Your task to perform on an android device: What's the news in the Philippines? Image 0: 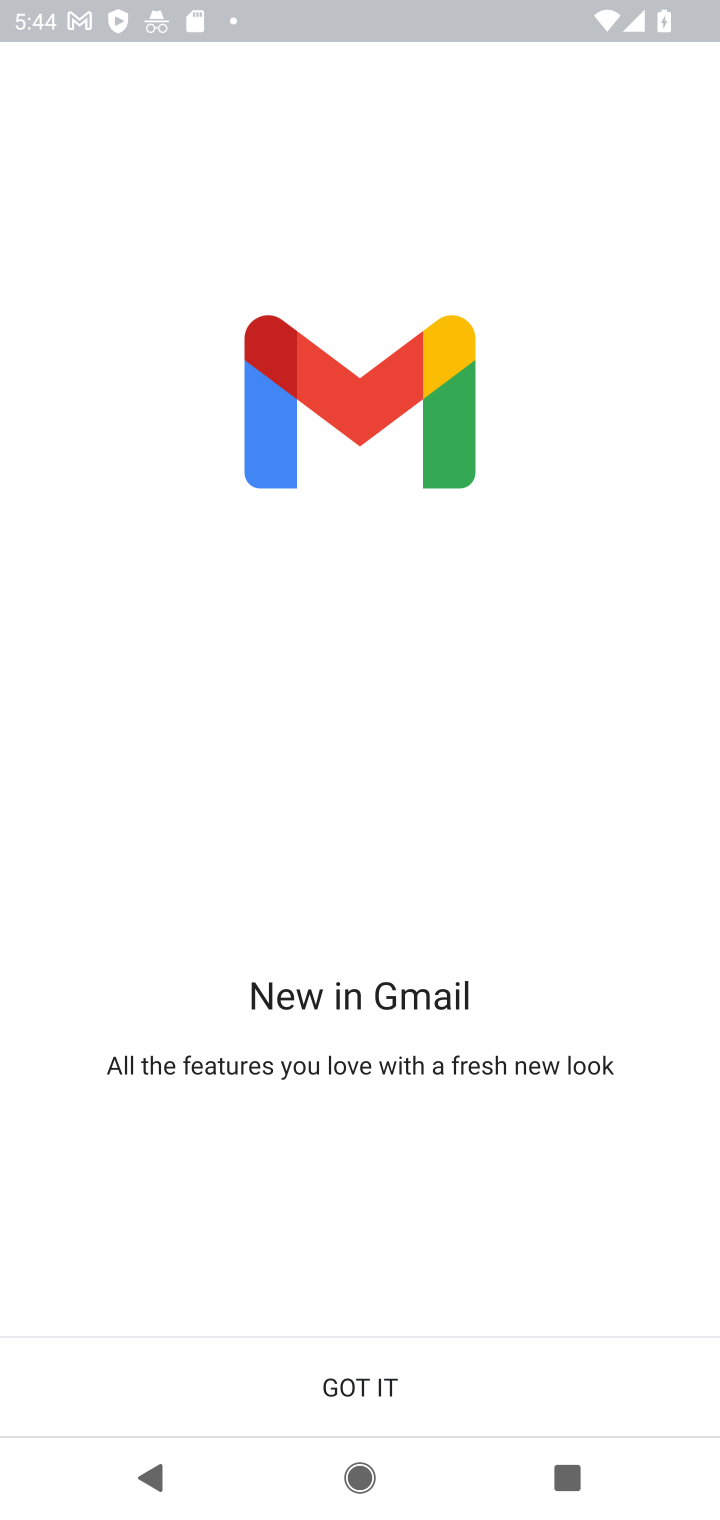
Step 0: press home button
Your task to perform on an android device: What's the news in the Philippines? Image 1: 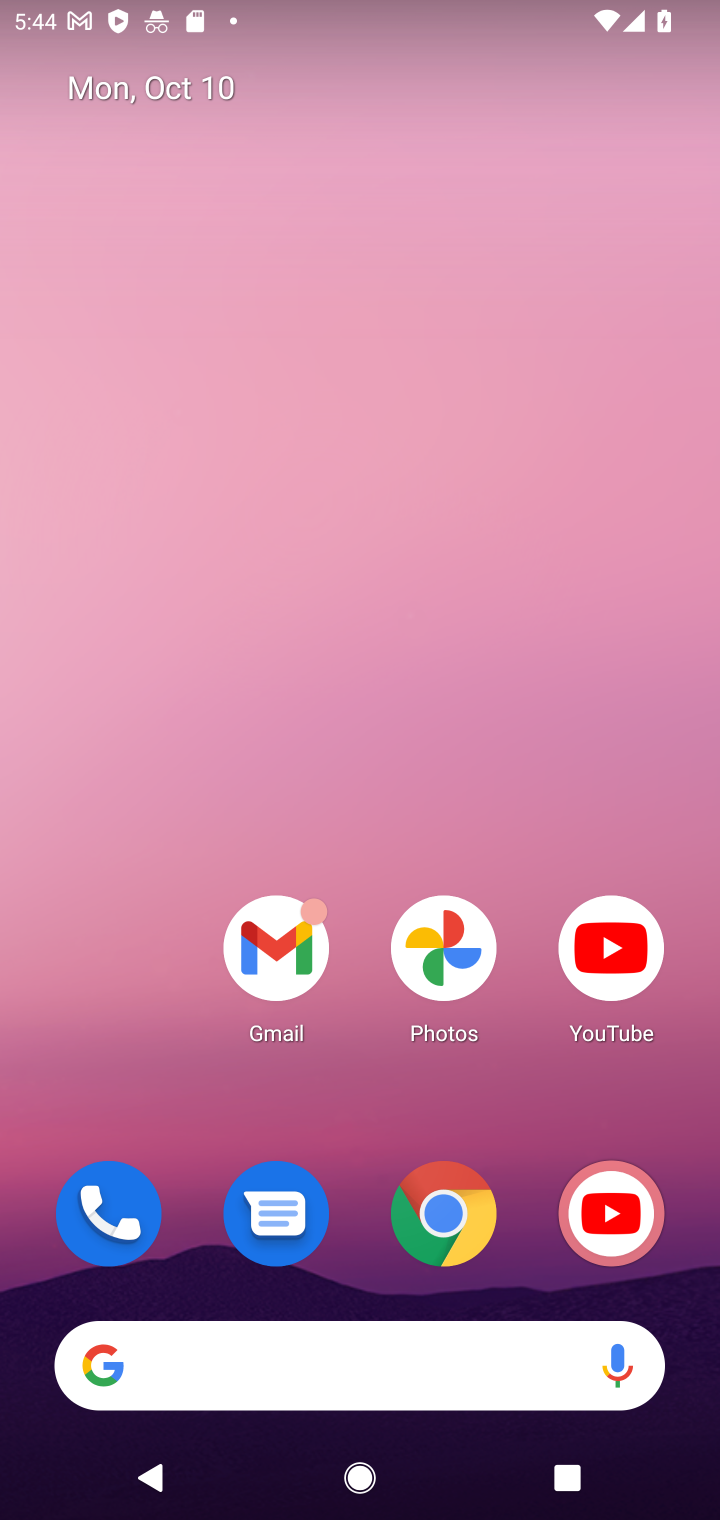
Step 1: click (356, 1356)
Your task to perform on an android device: What's the news in the Philippines? Image 2: 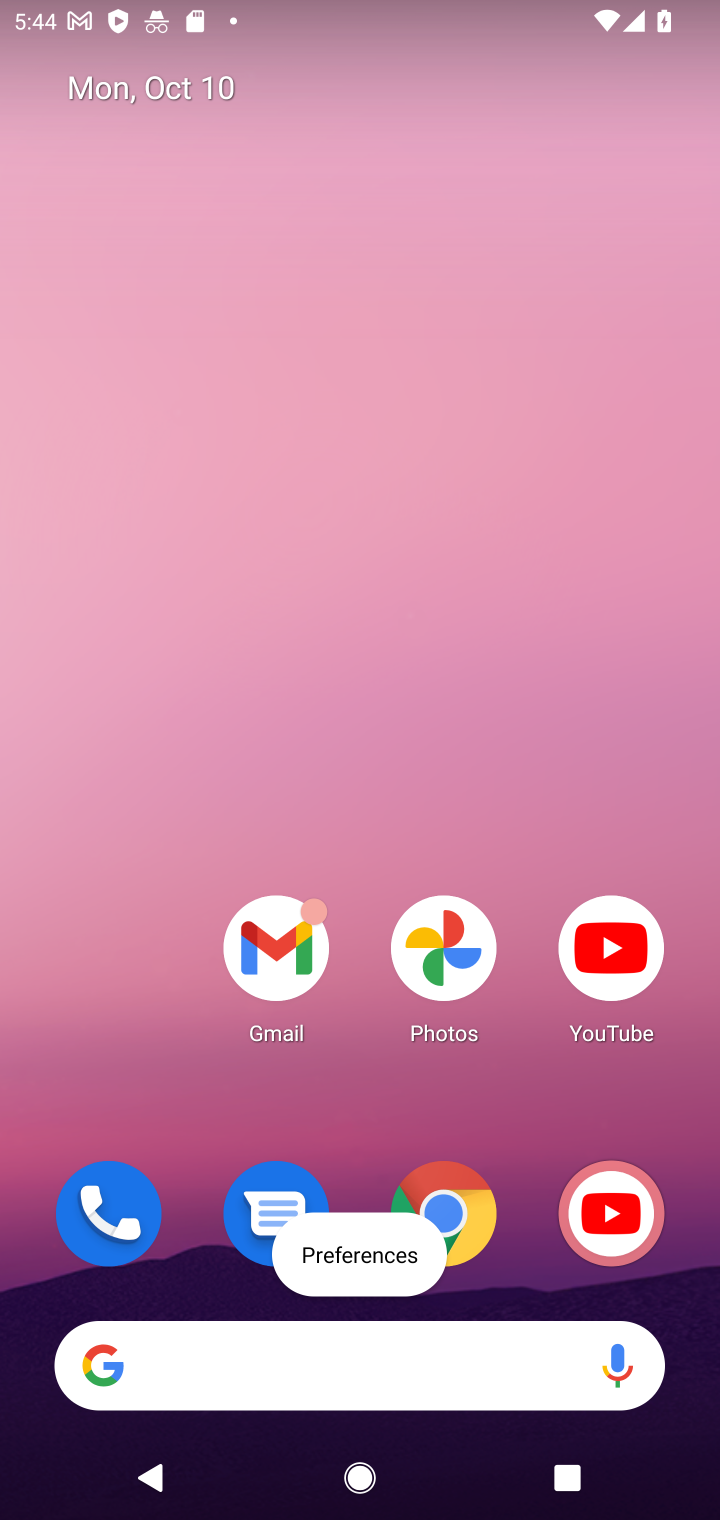
Step 2: click (274, 1366)
Your task to perform on an android device: What's the news in the Philippines? Image 3: 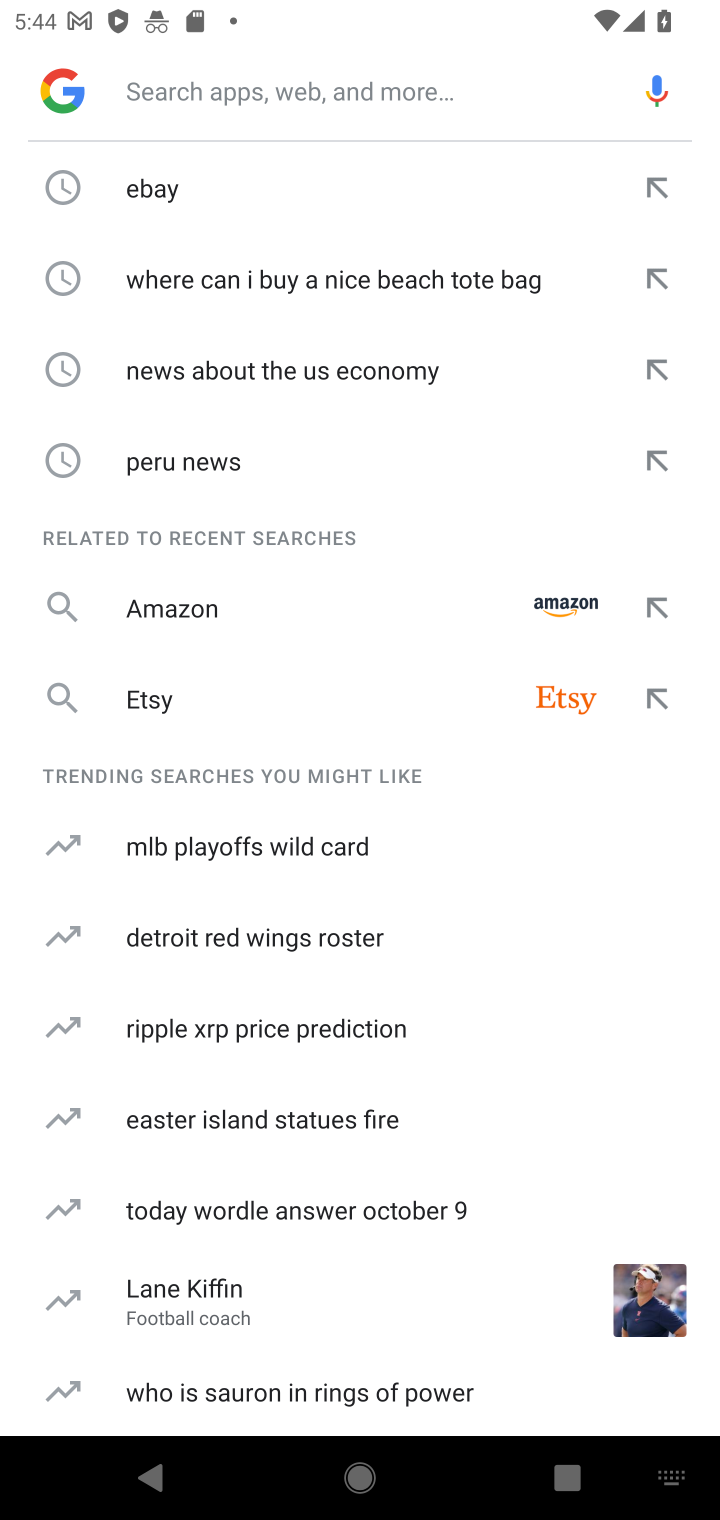
Step 3: click (189, 94)
Your task to perform on an android device: What's the news in the Philippines? Image 4: 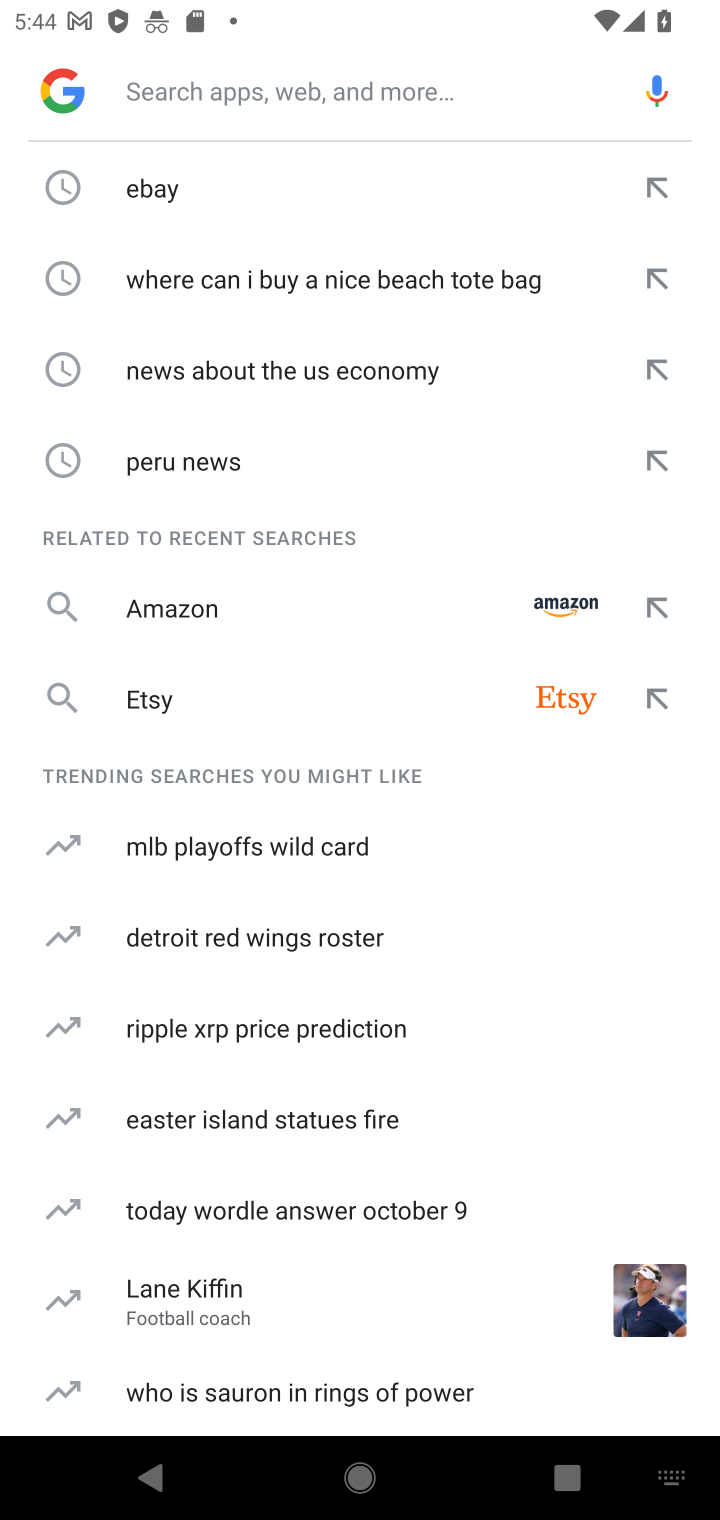
Step 4: type "What's the news in the Philippines?"
Your task to perform on an android device: What's the news in the Philippines? Image 5: 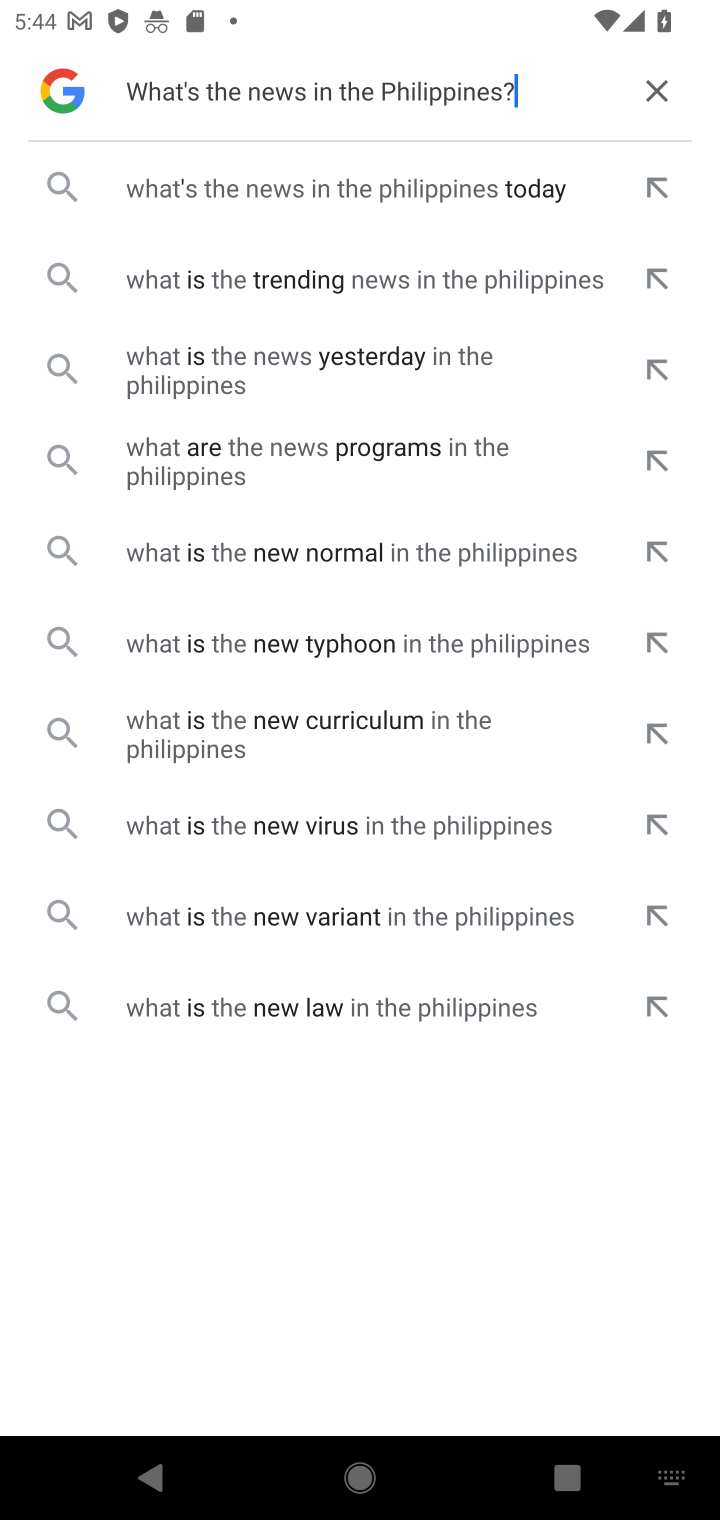
Step 5: click (407, 196)
Your task to perform on an android device: What's the news in the Philippines? Image 6: 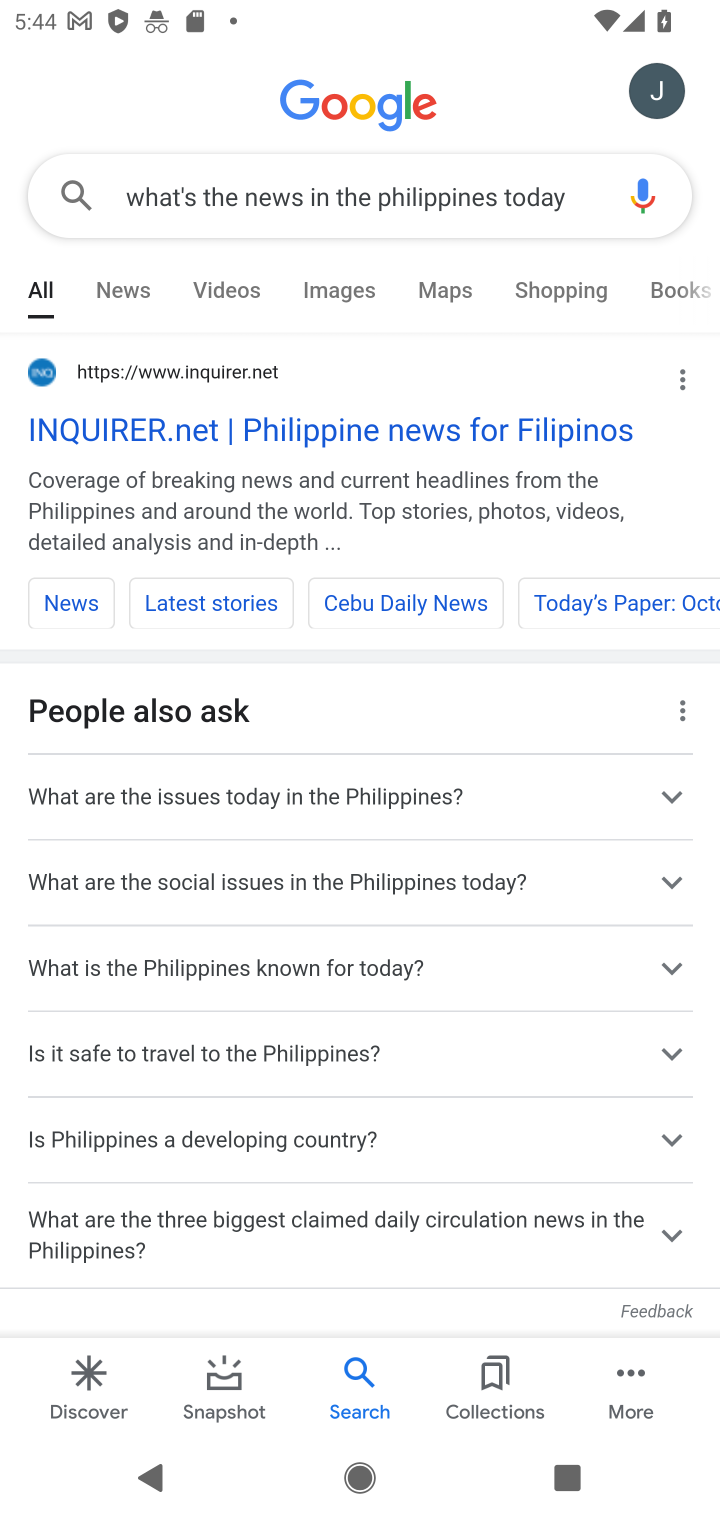
Step 6: task complete